Your task to perform on an android device: Open settings on Google Maps Image 0: 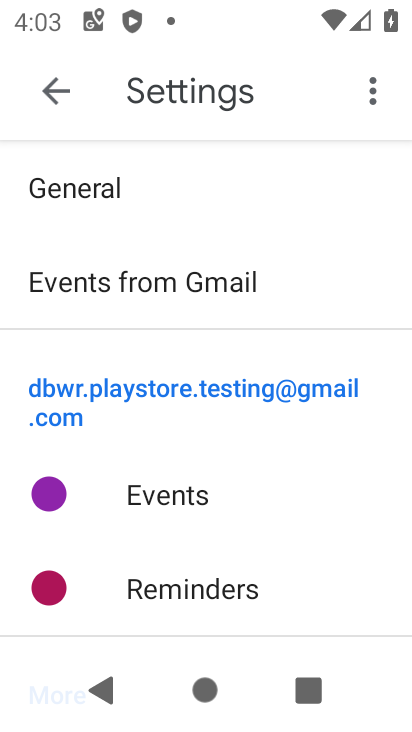
Step 0: press home button
Your task to perform on an android device: Open settings on Google Maps Image 1: 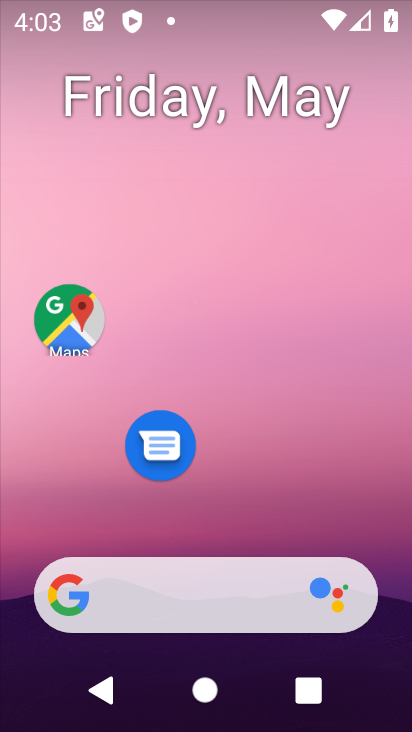
Step 1: click (69, 342)
Your task to perform on an android device: Open settings on Google Maps Image 2: 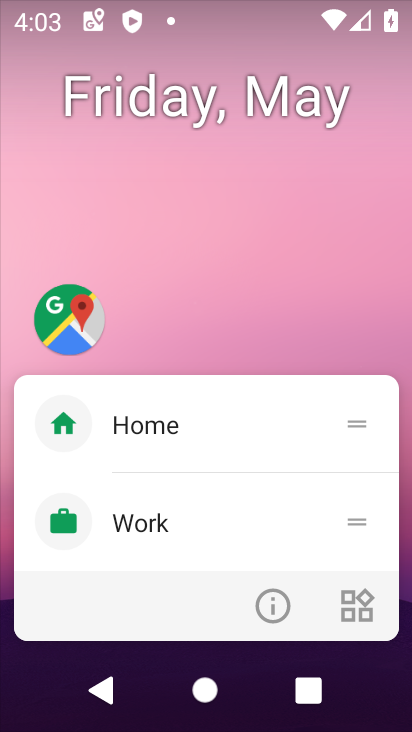
Step 2: click (56, 317)
Your task to perform on an android device: Open settings on Google Maps Image 3: 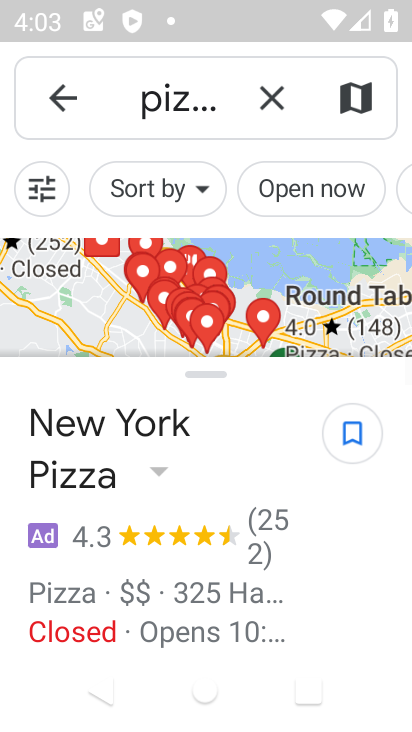
Step 3: click (63, 96)
Your task to perform on an android device: Open settings on Google Maps Image 4: 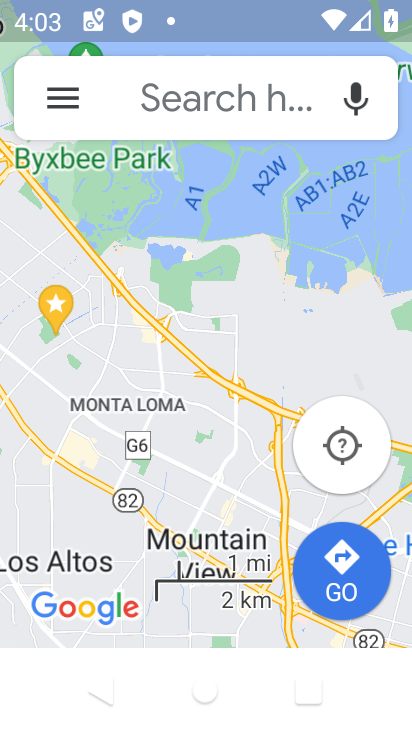
Step 4: click (63, 97)
Your task to perform on an android device: Open settings on Google Maps Image 5: 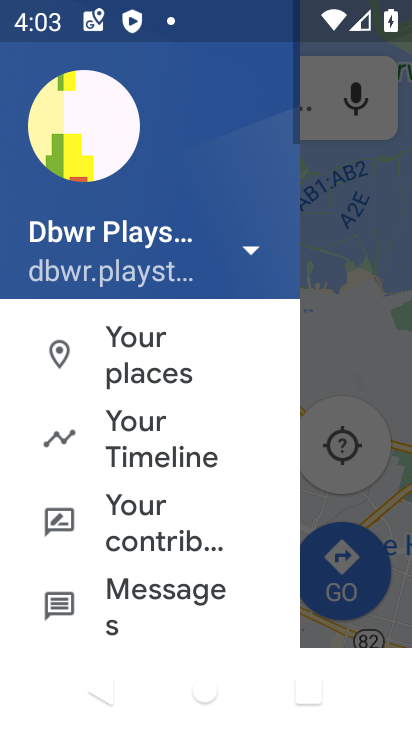
Step 5: drag from (83, 493) to (127, 145)
Your task to perform on an android device: Open settings on Google Maps Image 6: 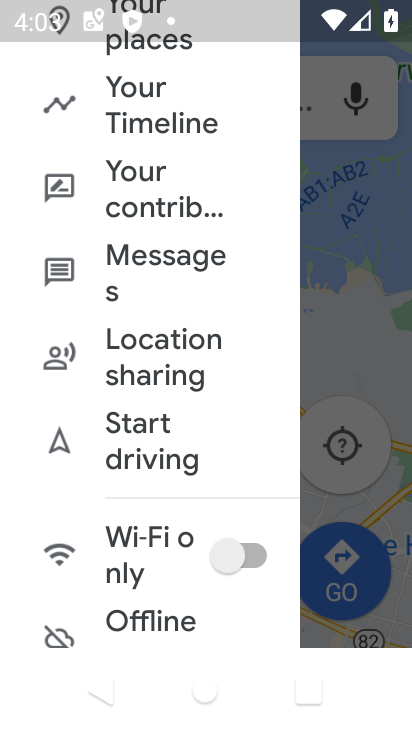
Step 6: drag from (133, 483) to (163, 108)
Your task to perform on an android device: Open settings on Google Maps Image 7: 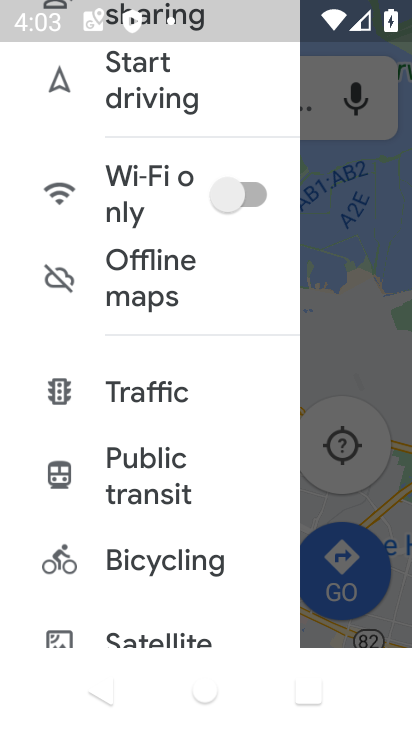
Step 7: drag from (144, 490) to (212, 93)
Your task to perform on an android device: Open settings on Google Maps Image 8: 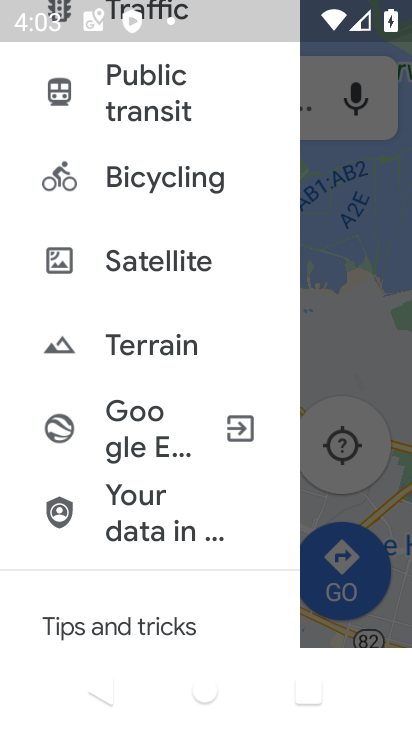
Step 8: drag from (172, 513) to (228, 68)
Your task to perform on an android device: Open settings on Google Maps Image 9: 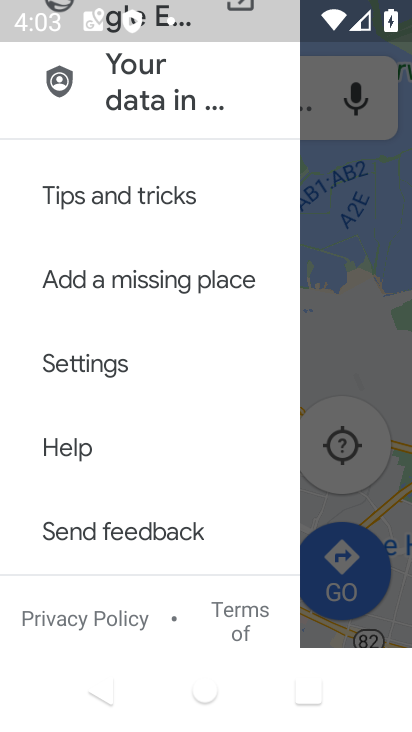
Step 9: click (129, 372)
Your task to perform on an android device: Open settings on Google Maps Image 10: 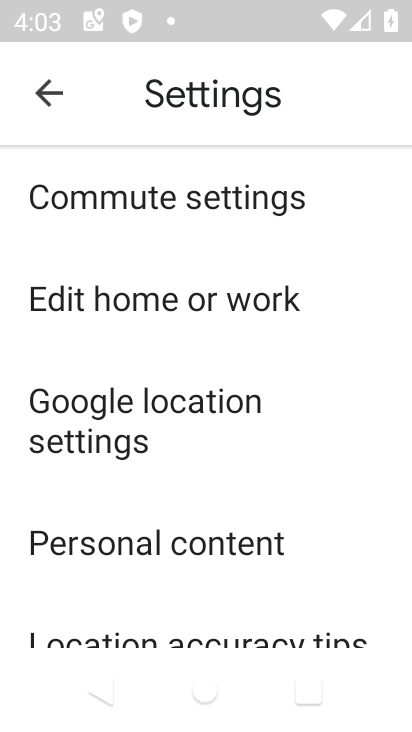
Step 10: task complete